Your task to perform on an android device: Go to Android settings Image 0: 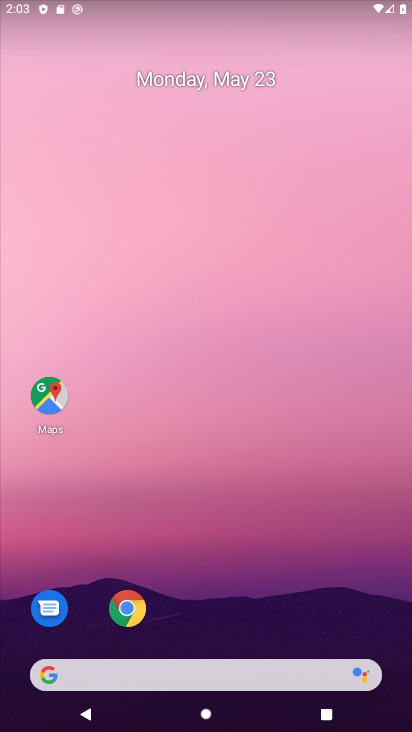
Step 0: drag from (317, 468) to (322, 312)
Your task to perform on an android device: Go to Android settings Image 1: 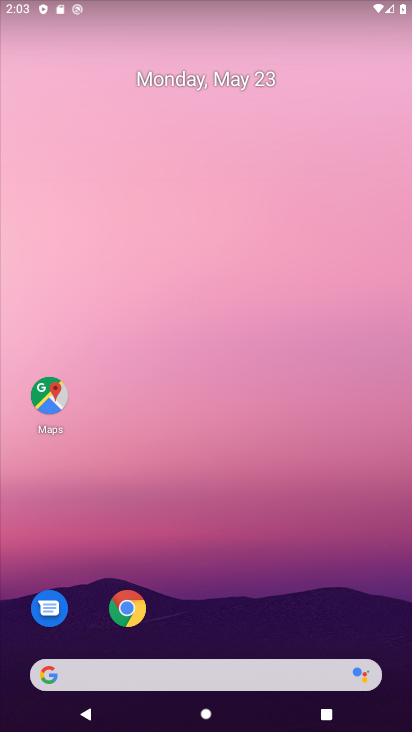
Step 1: drag from (260, 657) to (266, 329)
Your task to perform on an android device: Go to Android settings Image 2: 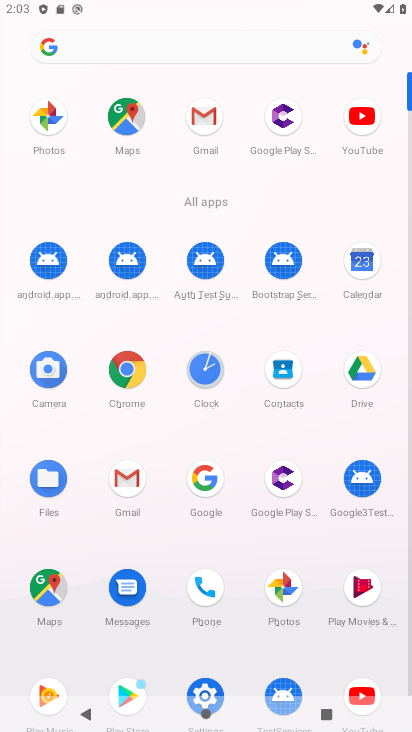
Step 2: click (208, 683)
Your task to perform on an android device: Go to Android settings Image 3: 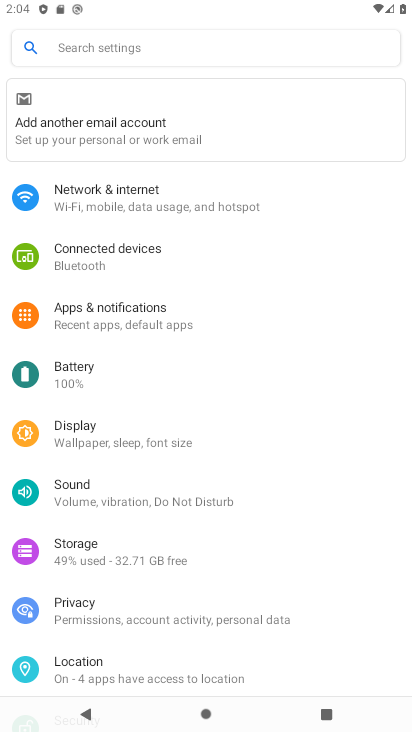
Step 3: task complete